Your task to perform on an android device: Open Yahoo.com Image 0: 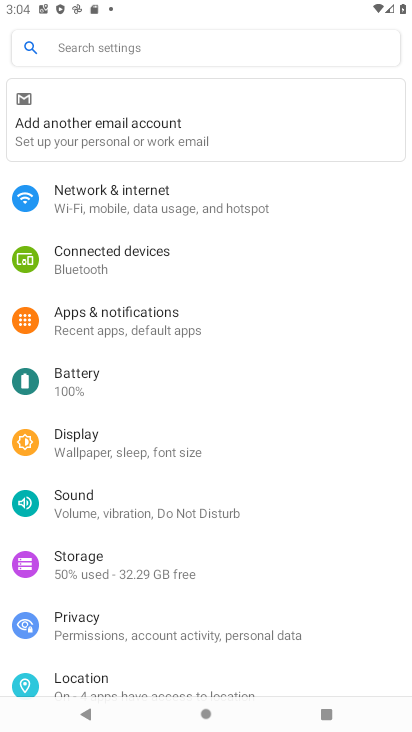
Step 0: press home button
Your task to perform on an android device: Open Yahoo.com Image 1: 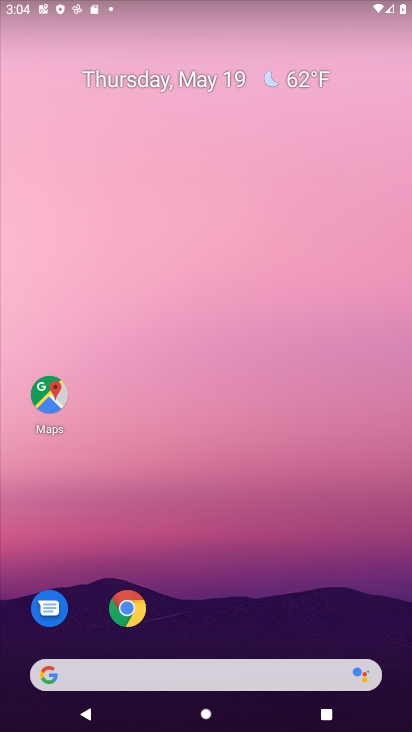
Step 1: click (307, 580)
Your task to perform on an android device: Open Yahoo.com Image 2: 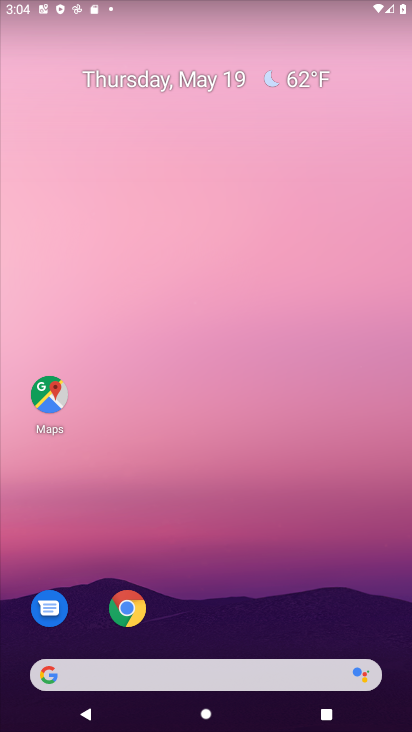
Step 2: click (140, 639)
Your task to perform on an android device: Open Yahoo.com Image 3: 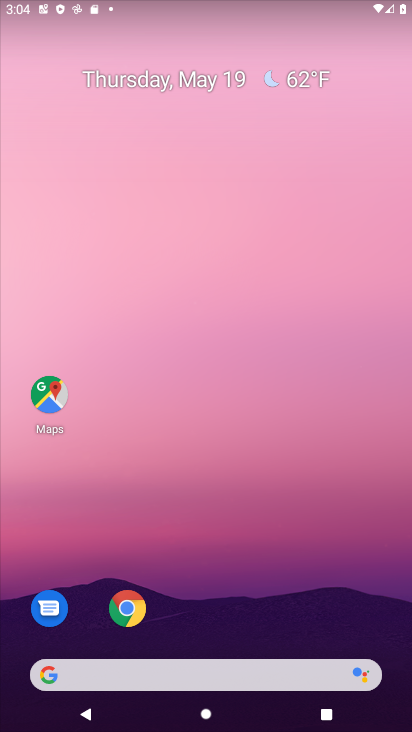
Step 3: click (140, 621)
Your task to perform on an android device: Open Yahoo.com Image 4: 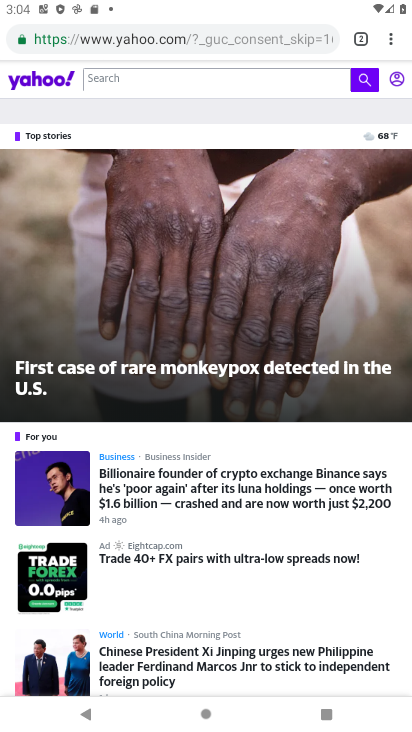
Step 4: task complete